Your task to perform on an android device: turn on notifications settings in the gmail app Image 0: 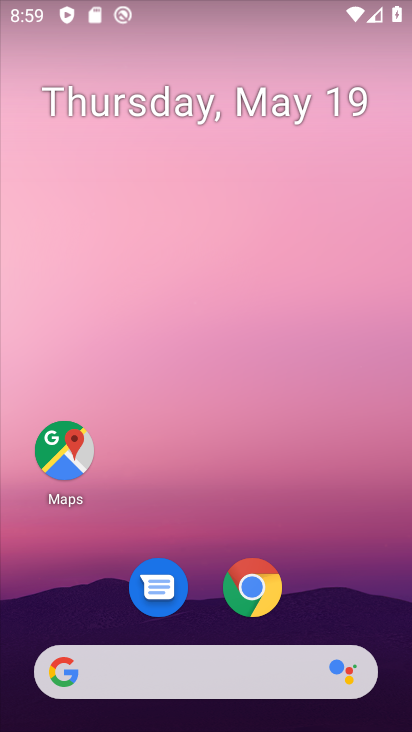
Step 0: drag from (320, 383) to (348, 79)
Your task to perform on an android device: turn on notifications settings in the gmail app Image 1: 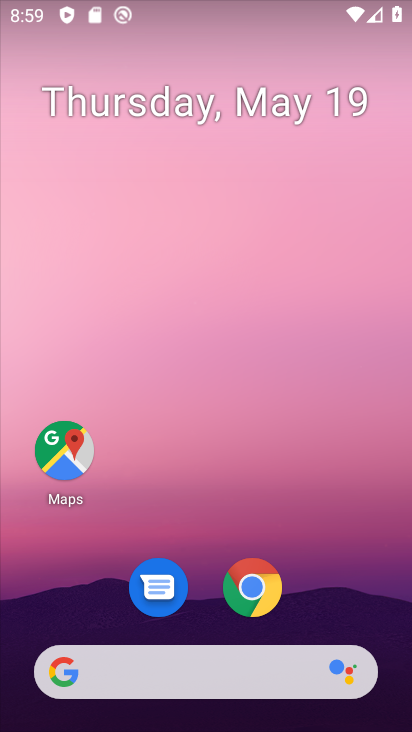
Step 1: drag from (299, 572) to (307, 130)
Your task to perform on an android device: turn on notifications settings in the gmail app Image 2: 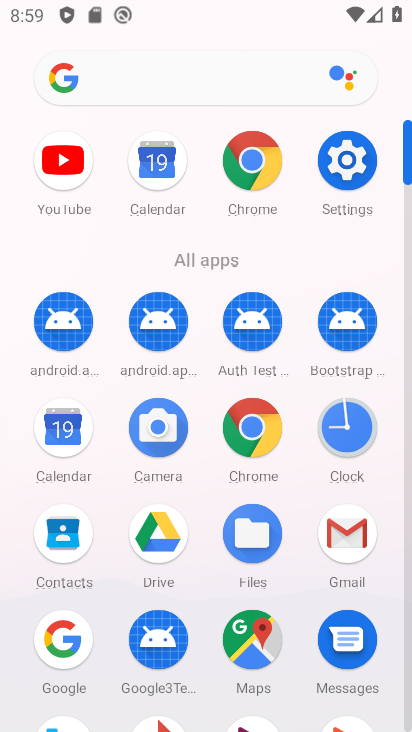
Step 2: click (342, 548)
Your task to perform on an android device: turn on notifications settings in the gmail app Image 3: 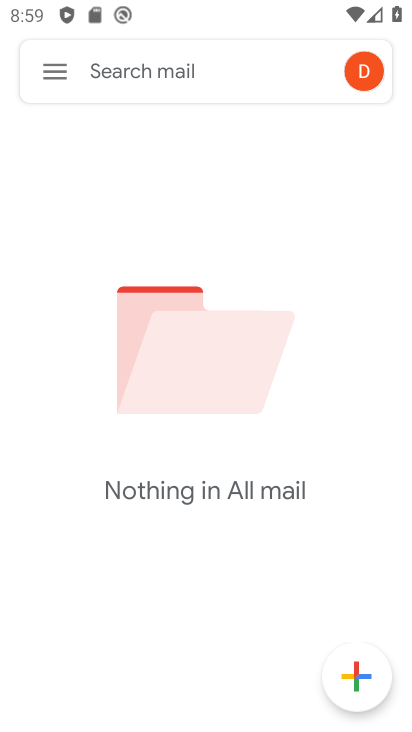
Step 3: click (49, 59)
Your task to perform on an android device: turn on notifications settings in the gmail app Image 4: 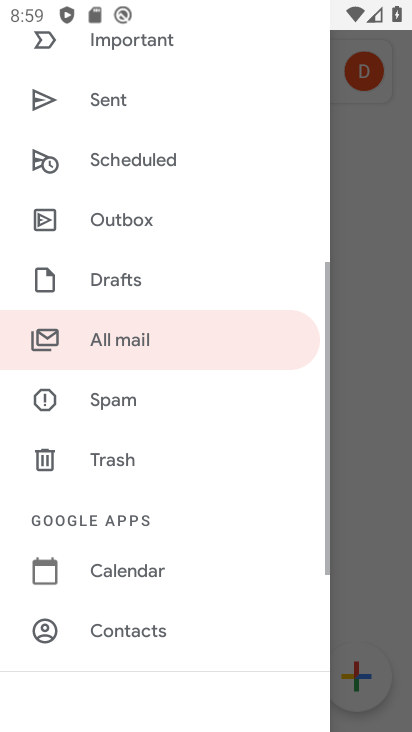
Step 4: drag from (135, 590) to (199, 209)
Your task to perform on an android device: turn on notifications settings in the gmail app Image 5: 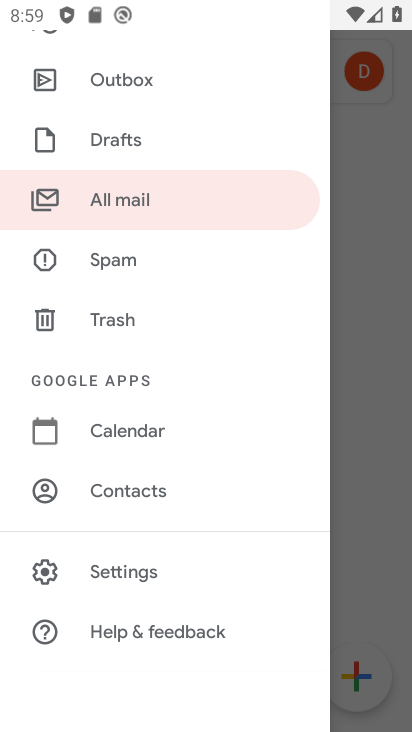
Step 5: click (115, 565)
Your task to perform on an android device: turn on notifications settings in the gmail app Image 6: 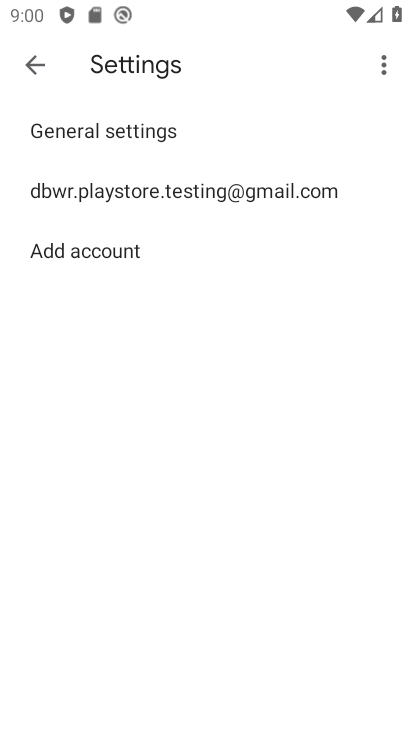
Step 6: click (196, 192)
Your task to perform on an android device: turn on notifications settings in the gmail app Image 7: 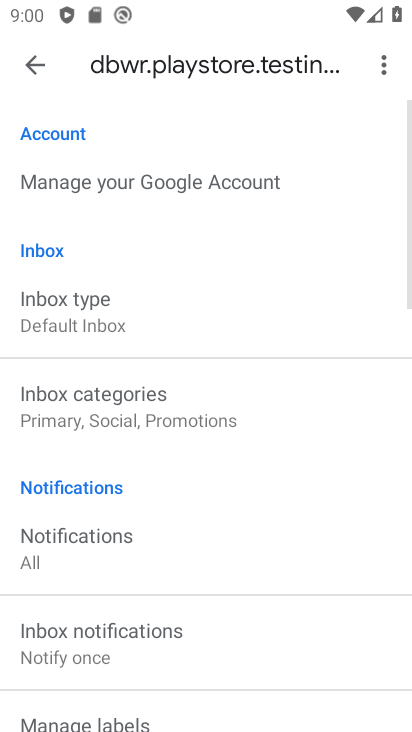
Step 7: drag from (148, 577) to (208, 234)
Your task to perform on an android device: turn on notifications settings in the gmail app Image 8: 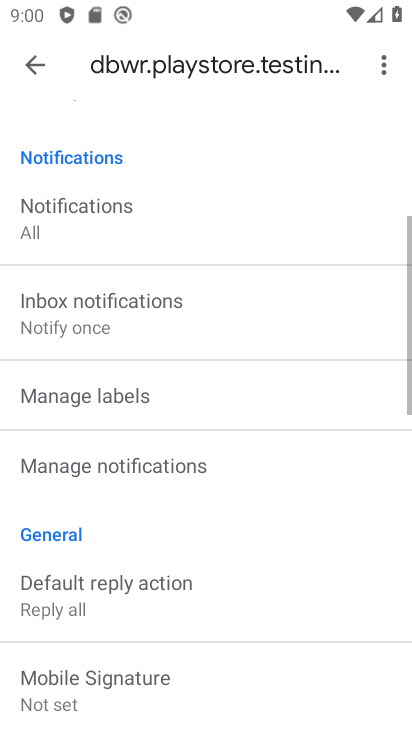
Step 8: click (212, 222)
Your task to perform on an android device: turn on notifications settings in the gmail app Image 9: 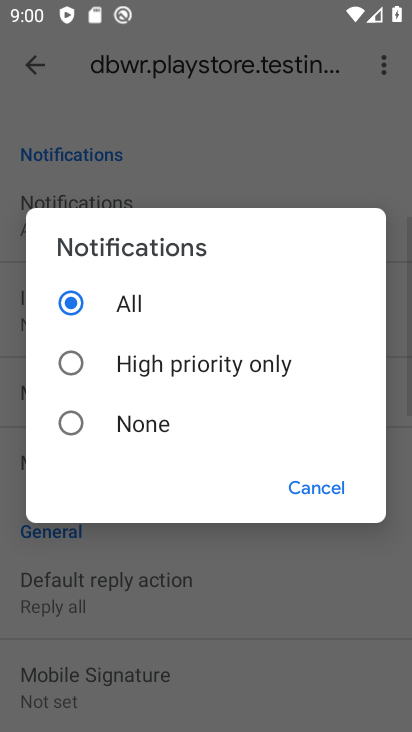
Step 9: click (301, 482)
Your task to perform on an android device: turn on notifications settings in the gmail app Image 10: 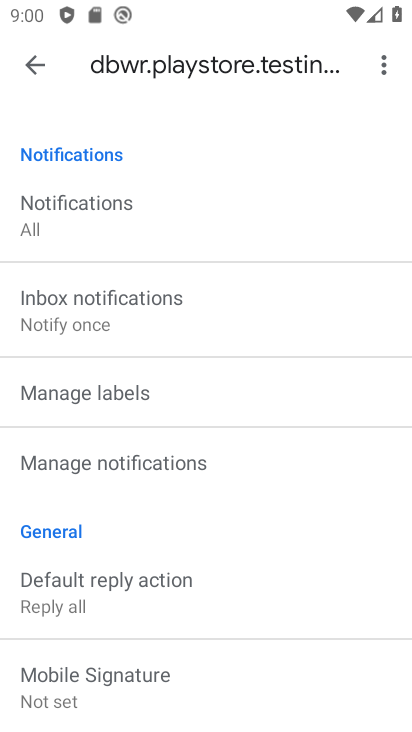
Step 10: click (160, 462)
Your task to perform on an android device: turn on notifications settings in the gmail app Image 11: 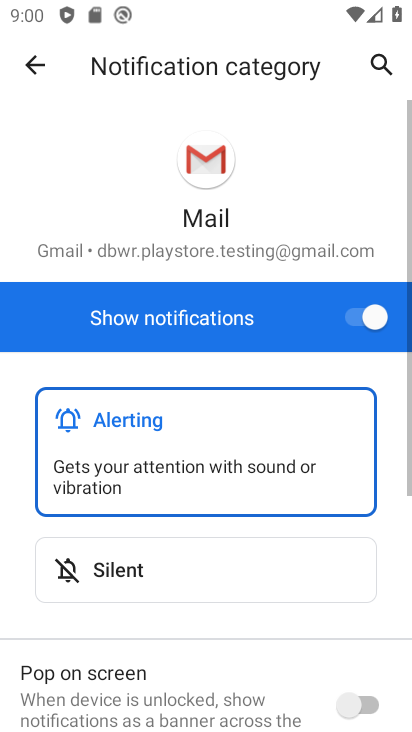
Step 11: drag from (201, 585) to (232, 161)
Your task to perform on an android device: turn on notifications settings in the gmail app Image 12: 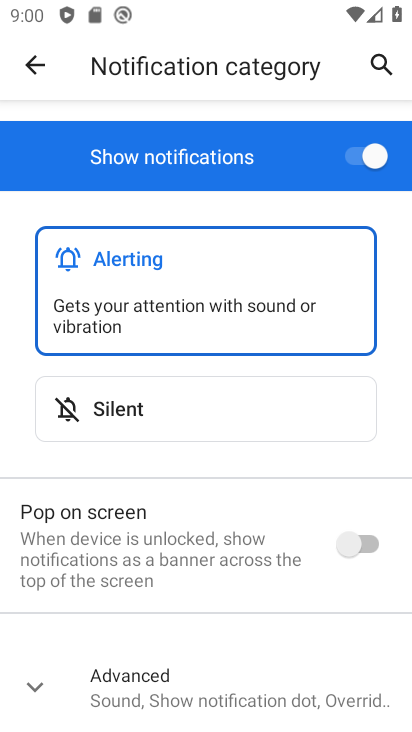
Step 12: click (36, 59)
Your task to perform on an android device: turn on notifications settings in the gmail app Image 13: 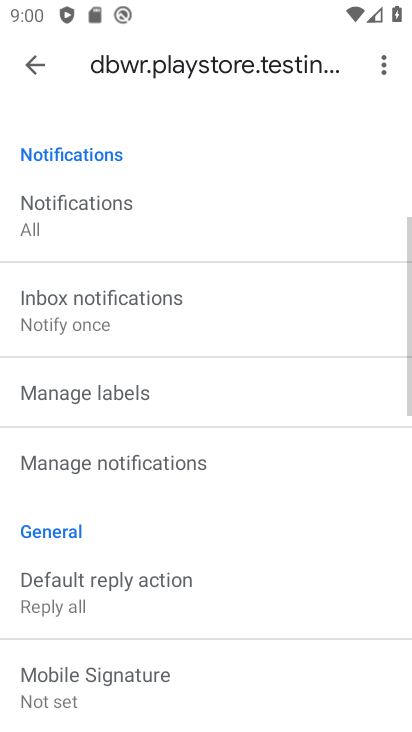
Step 13: drag from (141, 629) to (152, 481)
Your task to perform on an android device: turn on notifications settings in the gmail app Image 14: 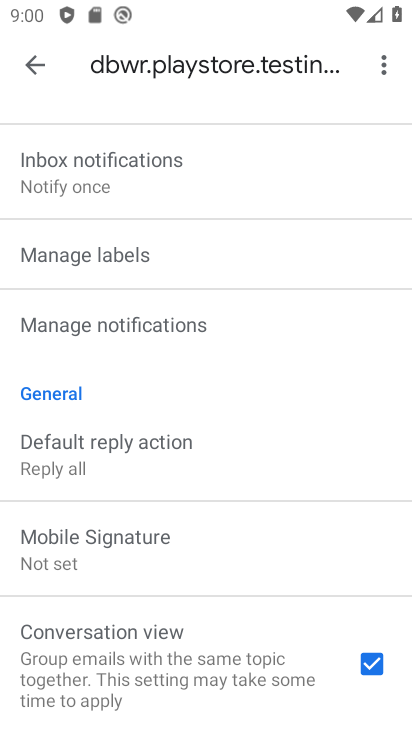
Step 14: click (140, 340)
Your task to perform on an android device: turn on notifications settings in the gmail app Image 15: 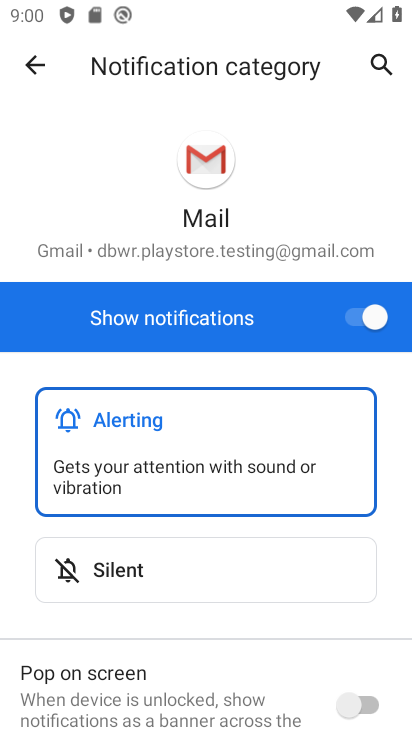
Step 15: task complete